Your task to perform on an android device: Play the last video I watched on Youtube Image 0: 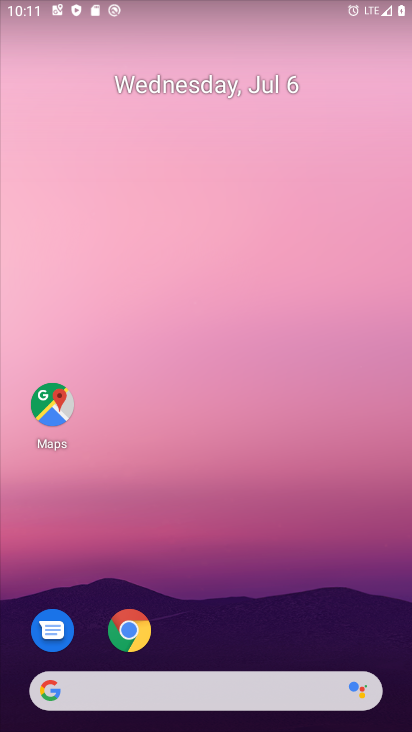
Step 0: drag from (391, 640) to (346, 81)
Your task to perform on an android device: Play the last video I watched on Youtube Image 1: 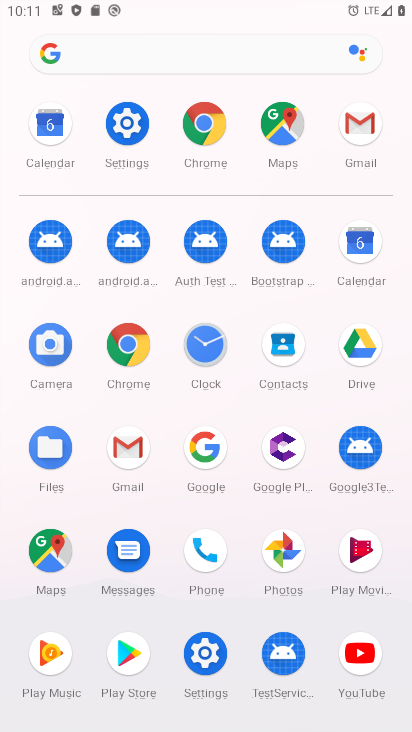
Step 1: click (360, 652)
Your task to perform on an android device: Play the last video I watched on Youtube Image 2: 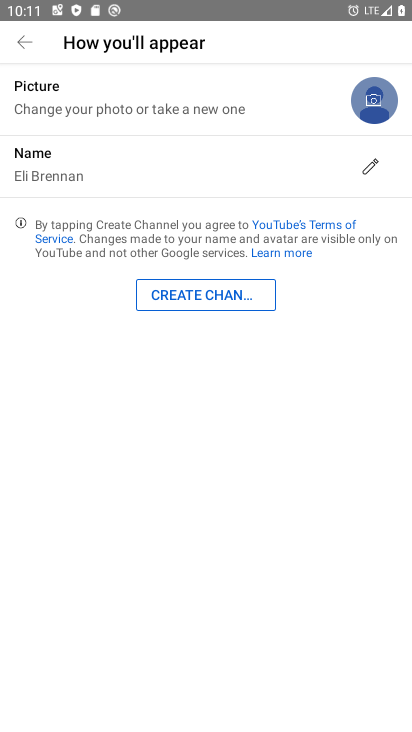
Step 2: press back button
Your task to perform on an android device: Play the last video I watched on Youtube Image 3: 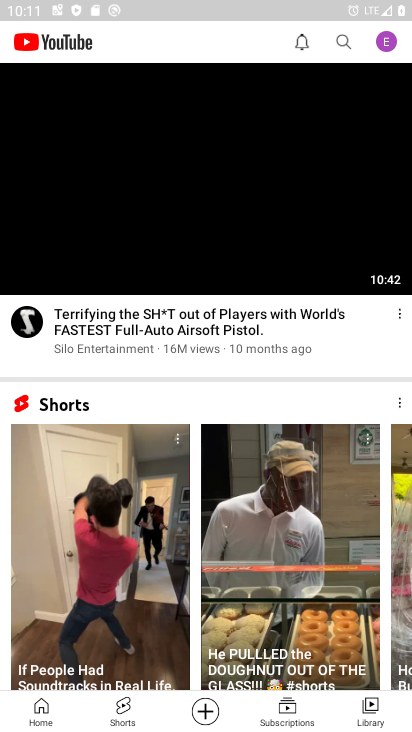
Step 3: click (374, 716)
Your task to perform on an android device: Play the last video I watched on Youtube Image 4: 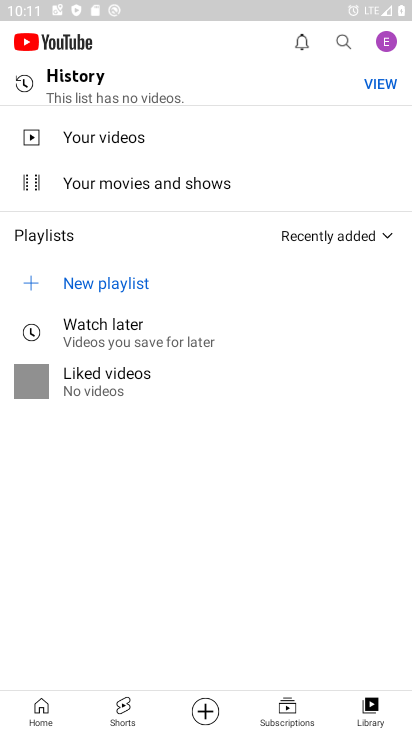
Step 4: drag from (148, 149) to (154, 335)
Your task to perform on an android device: Play the last video I watched on Youtube Image 5: 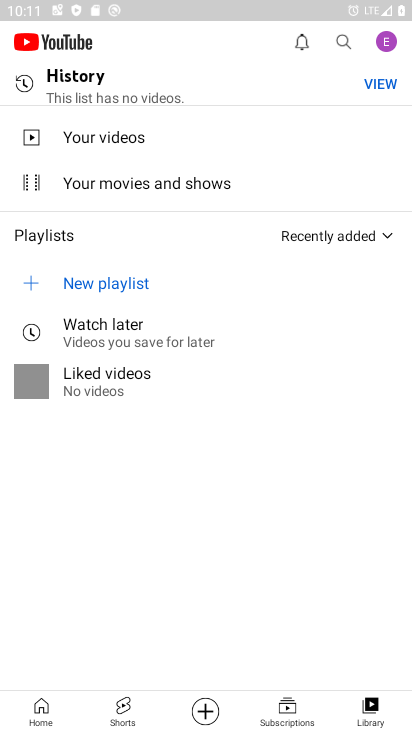
Step 5: click (384, 83)
Your task to perform on an android device: Play the last video I watched on Youtube Image 6: 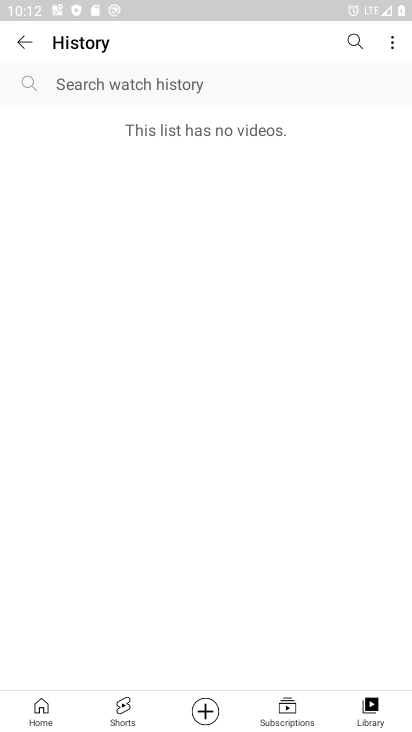
Step 6: task complete